Your task to perform on an android device: Show me popular games on the Play Store Image 0: 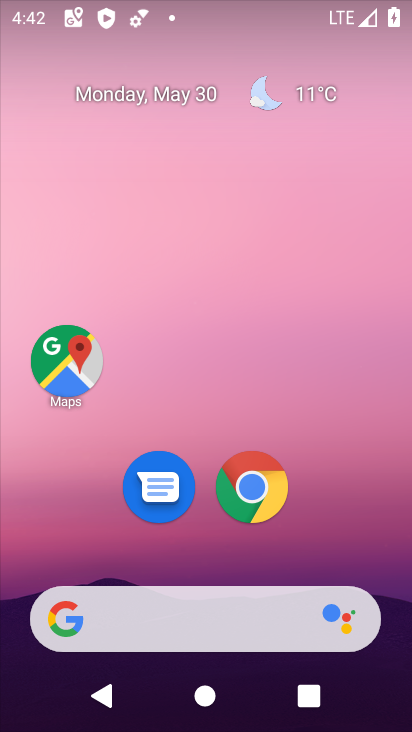
Step 0: drag from (389, 621) to (279, 78)
Your task to perform on an android device: Show me popular games on the Play Store Image 1: 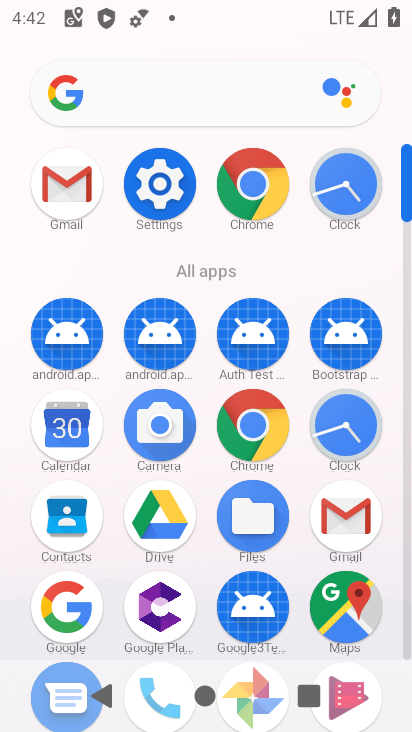
Step 1: click (409, 647)
Your task to perform on an android device: Show me popular games on the Play Store Image 2: 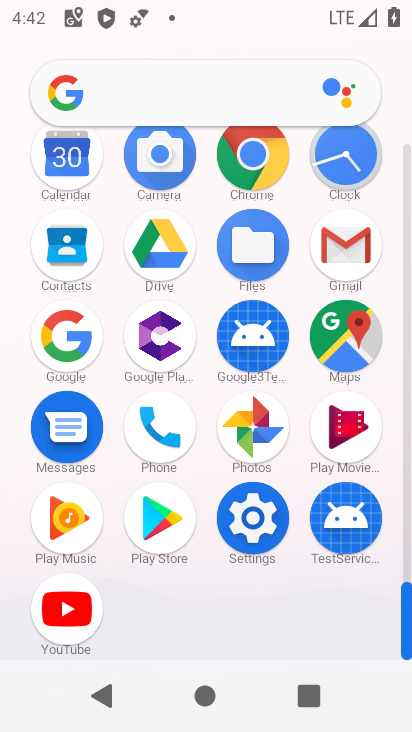
Step 2: click (168, 515)
Your task to perform on an android device: Show me popular games on the Play Store Image 3: 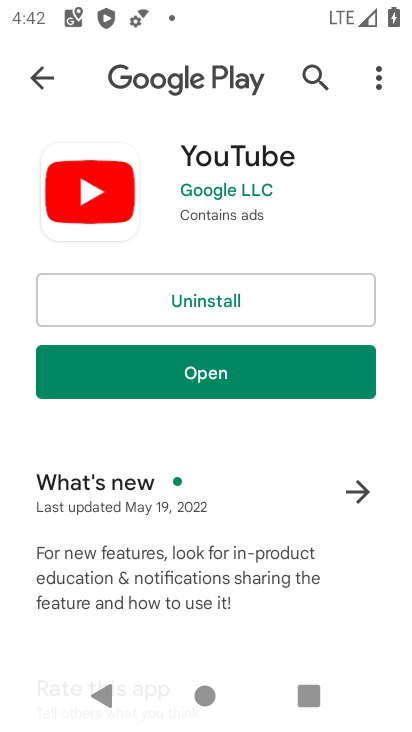
Step 3: press back button
Your task to perform on an android device: Show me popular games on the Play Store Image 4: 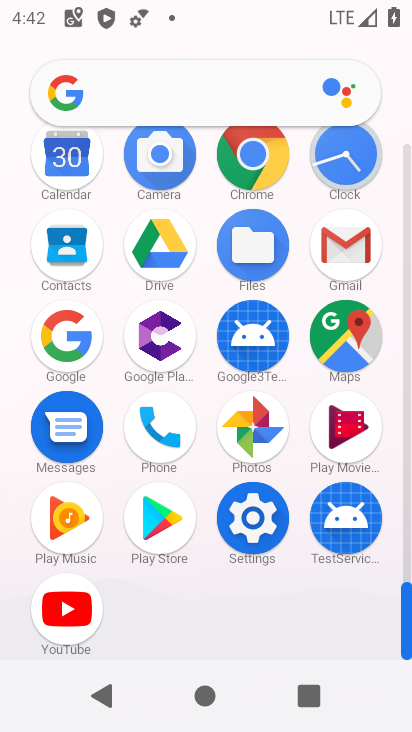
Step 4: click (170, 511)
Your task to perform on an android device: Show me popular games on the Play Store Image 5: 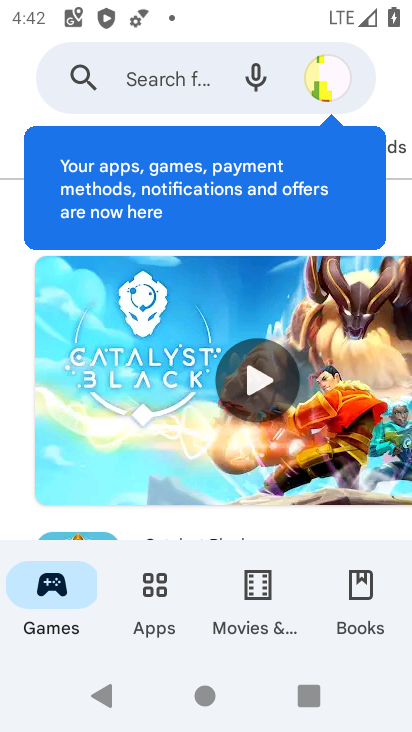
Step 5: drag from (212, 505) to (197, 56)
Your task to perform on an android device: Show me popular games on the Play Store Image 6: 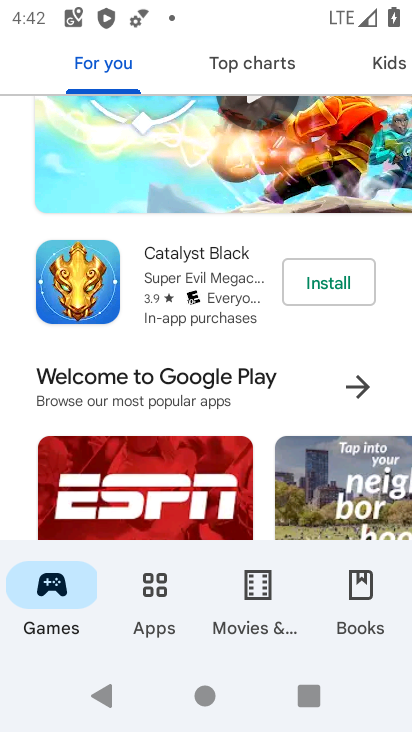
Step 6: drag from (256, 433) to (216, 44)
Your task to perform on an android device: Show me popular games on the Play Store Image 7: 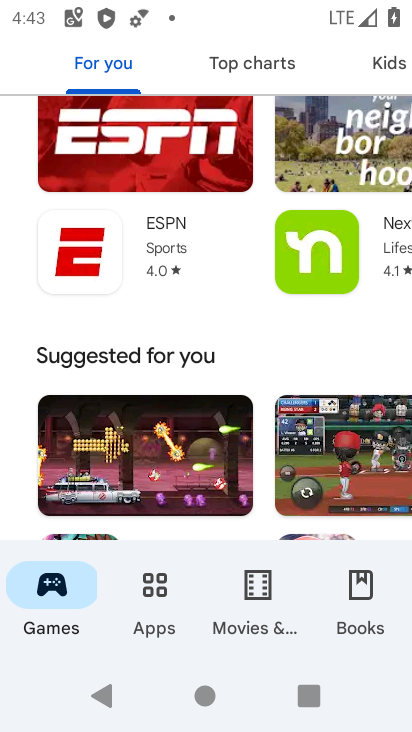
Step 7: drag from (264, 531) to (205, 33)
Your task to perform on an android device: Show me popular games on the Play Store Image 8: 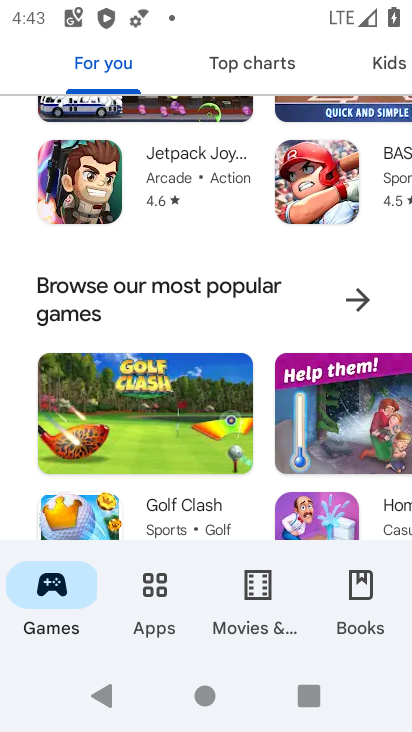
Step 8: click (363, 302)
Your task to perform on an android device: Show me popular games on the Play Store Image 9: 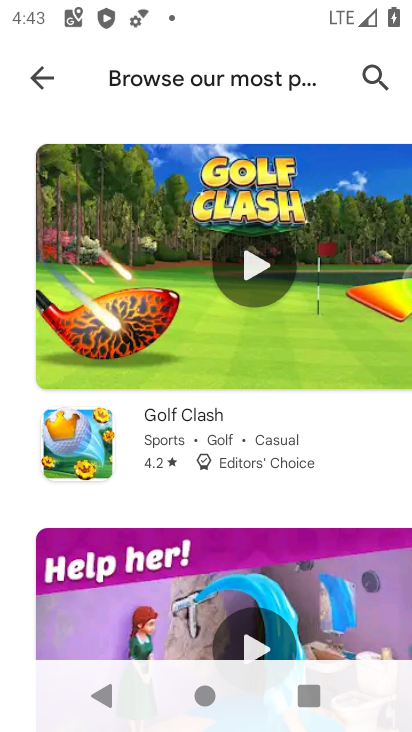
Step 9: task complete